Your task to perform on an android device: Go to wifi settings Image 0: 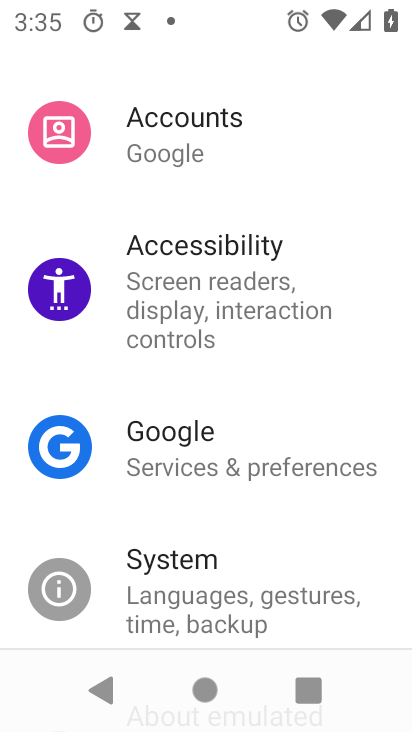
Step 0: press home button
Your task to perform on an android device: Go to wifi settings Image 1: 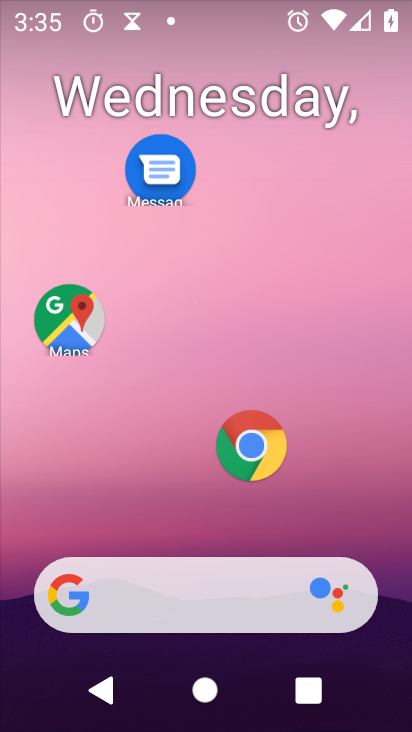
Step 1: drag from (133, 9) to (103, 492)
Your task to perform on an android device: Go to wifi settings Image 2: 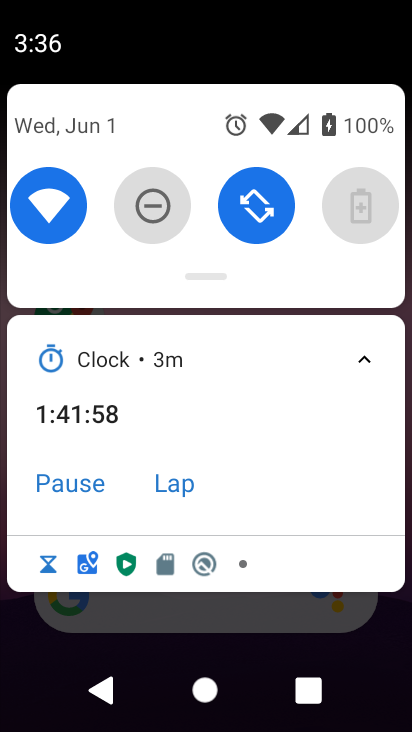
Step 2: click (49, 202)
Your task to perform on an android device: Go to wifi settings Image 3: 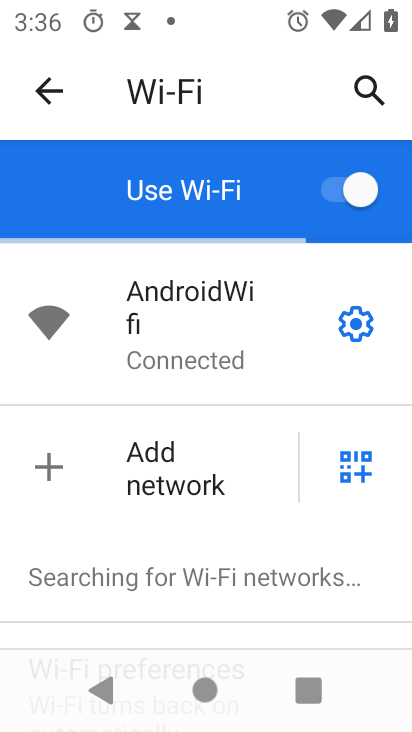
Step 3: click (353, 317)
Your task to perform on an android device: Go to wifi settings Image 4: 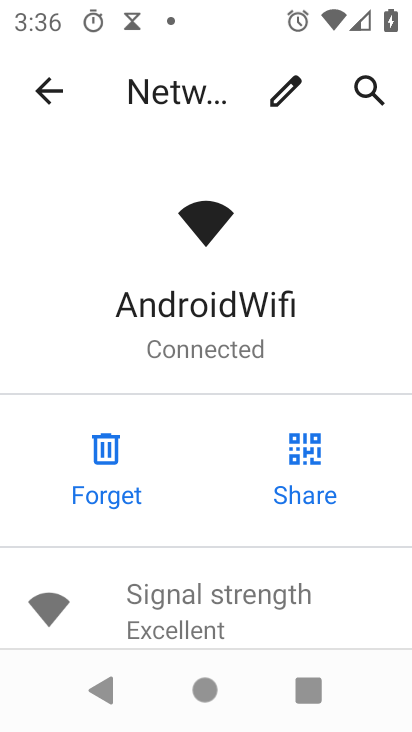
Step 4: task complete